Your task to perform on an android device: Open sound settings Image 0: 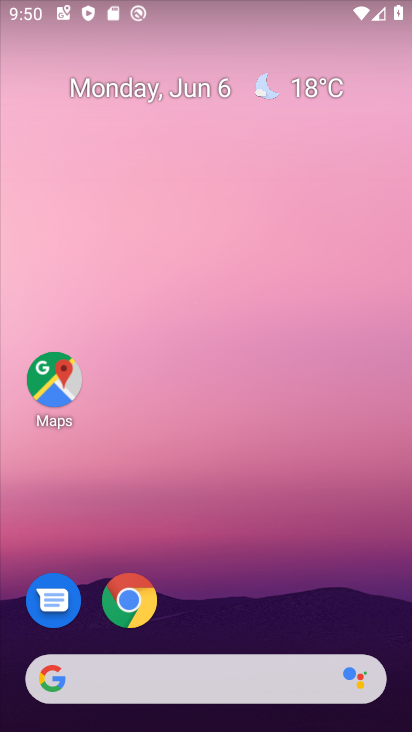
Step 0: drag from (273, 576) to (210, 0)
Your task to perform on an android device: Open sound settings Image 1: 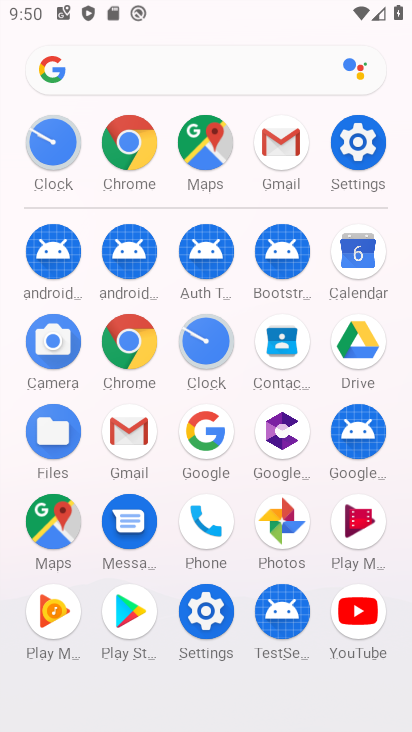
Step 1: click (203, 610)
Your task to perform on an android device: Open sound settings Image 2: 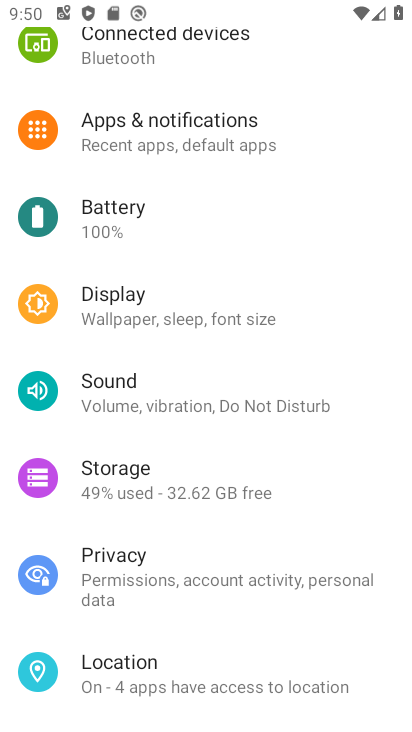
Step 2: click (169, 388)
Your task to perform on an android device: Open sound settings Image 3: 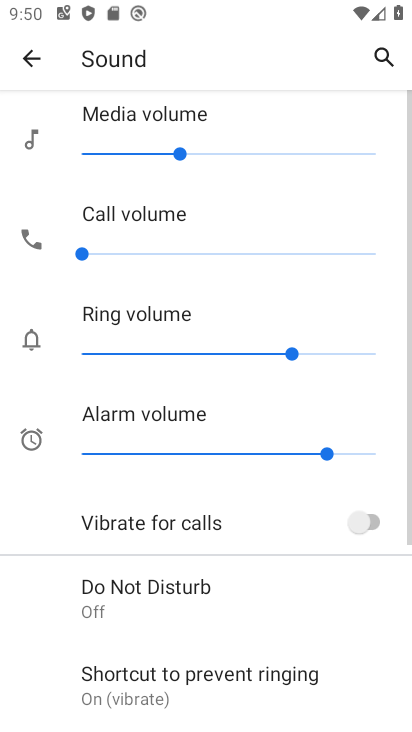
Step 3: drag from (181, 578) to (219, 143)
Your task to perform on an android device: Open sound settings Image 4: 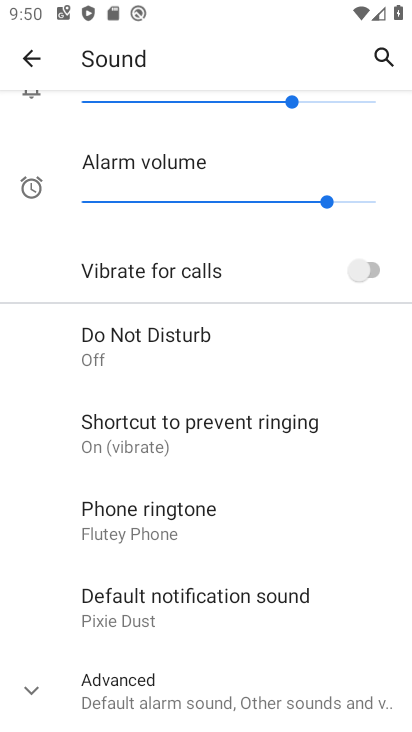
Step 4: click (44, 677)
Your task to perform on an android device: Open sound settings Image 5: 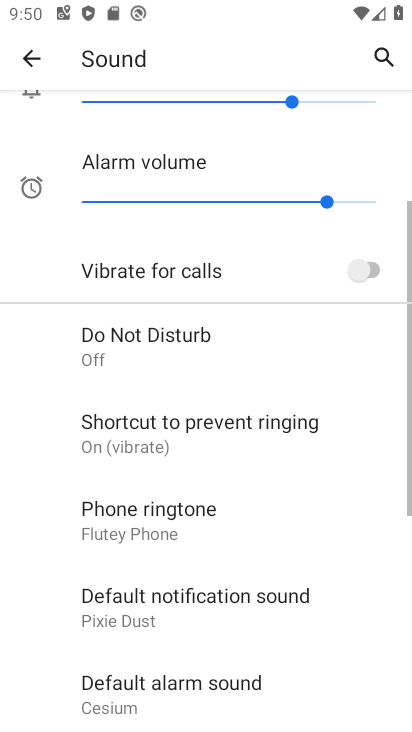
Step 5: task complete